Your task to perform on an android device: stop showing notifications on the lock screen Image 0: 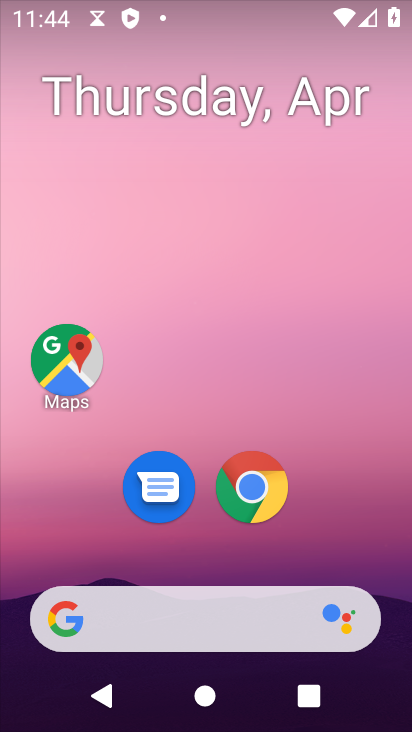
Step 0: drag from (302, 494) to (293, 190)
Your task to perform on an android device: stop showing notifications on the lock screen Image 1: 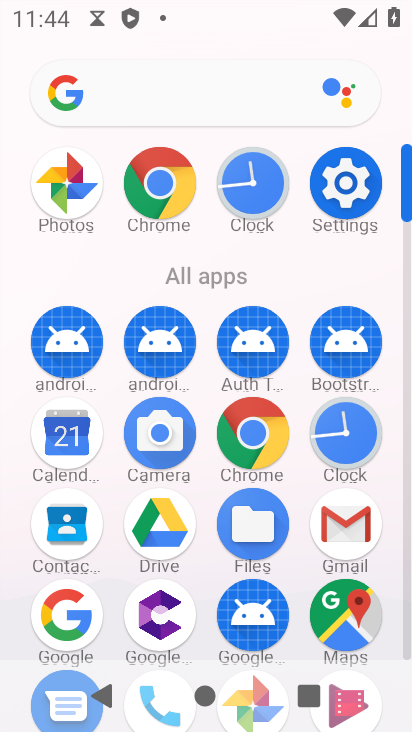
Step 1: click (348, 179)
Your task to perform on an android device: stop showing notifications on the lock screen Image 2: 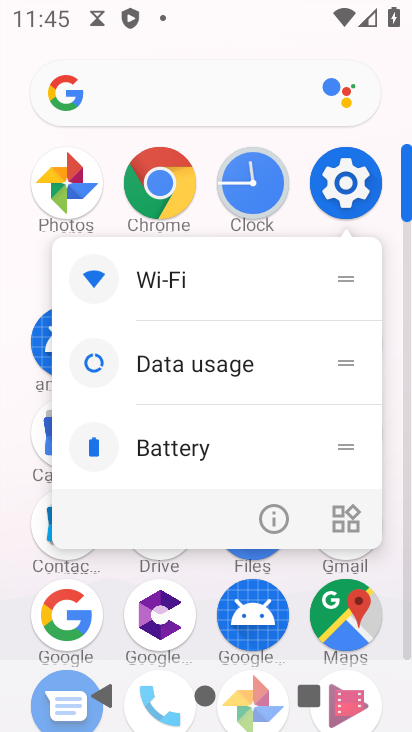
Step 2: click (350, 179)
Your task to perform on an android device: stop showing notifications on the lock screen Image 3: 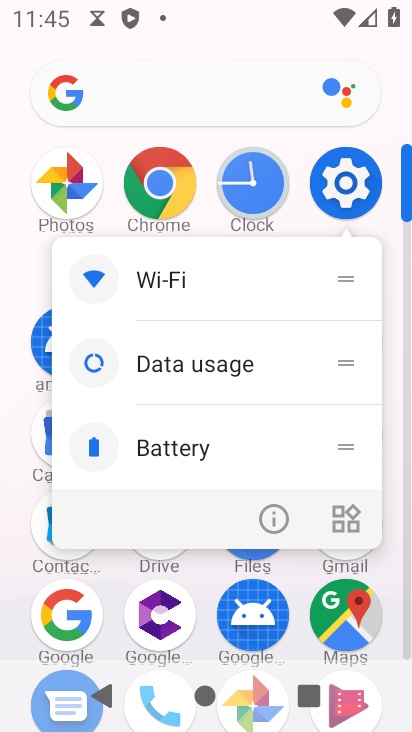
Step 3: click (350, 179)
Your task to perform on an android device: stop showing notifications on the lock screen Image 4: 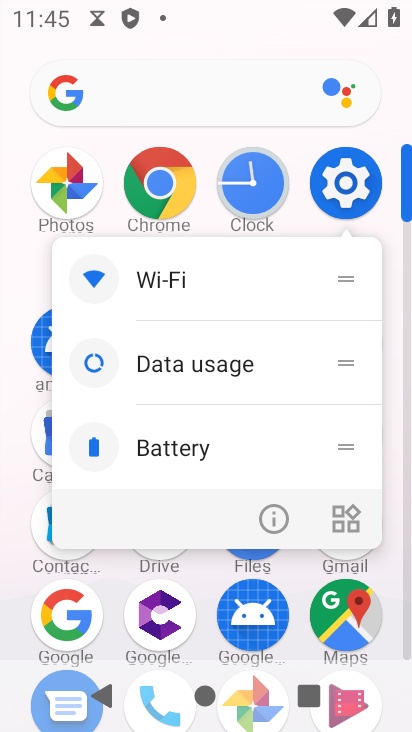
Step 4: click (350, 179)
Your task to perform on an android device: stop showing notifications on the lock screen Image 5: 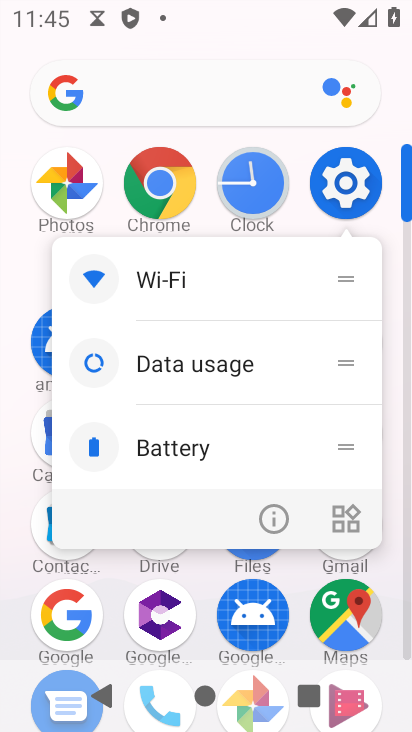
Step 5: click (350, 179)
Your task to perform on an android device: stop showing notifications on the lock screen Image 6: 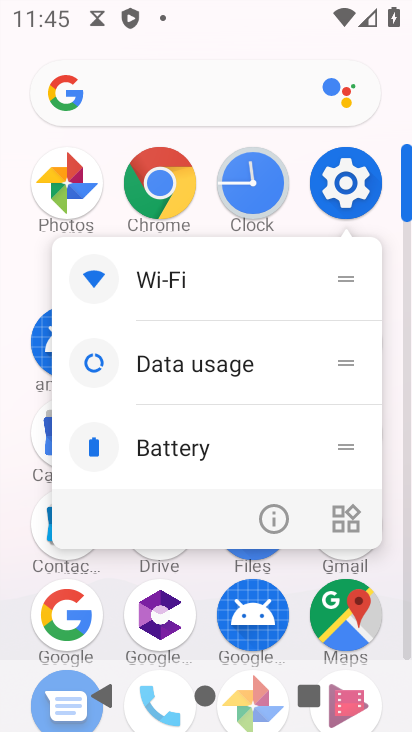
Step 6: click (365, 158)
Your task to perform on an android device: stop showing notifications on the lock screen Image 7: 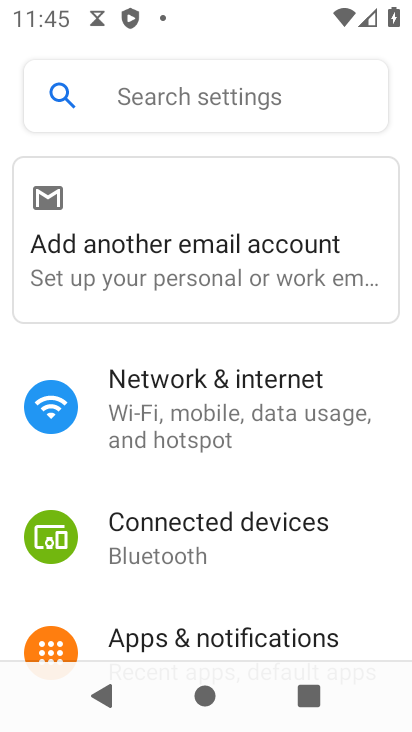
Step 7: drag from (200, 619) to (247, 386)
Your task to perform on an android device: stop showing notifications on the lock screen Image 8: 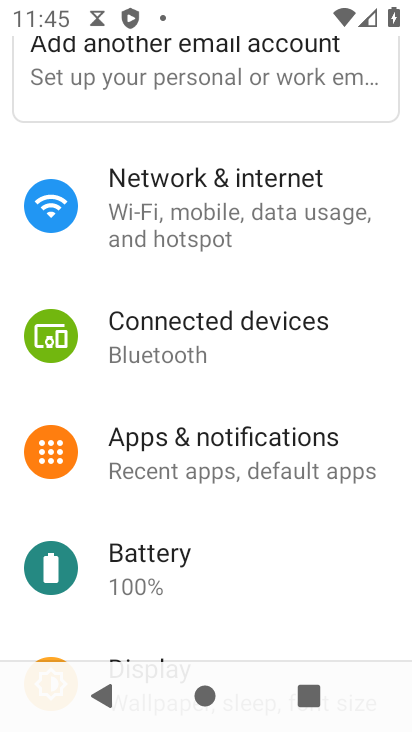
Step 8: click (212, 441)
Your task to perform on an android device: stop showing notifications on the lock screen Image 9: 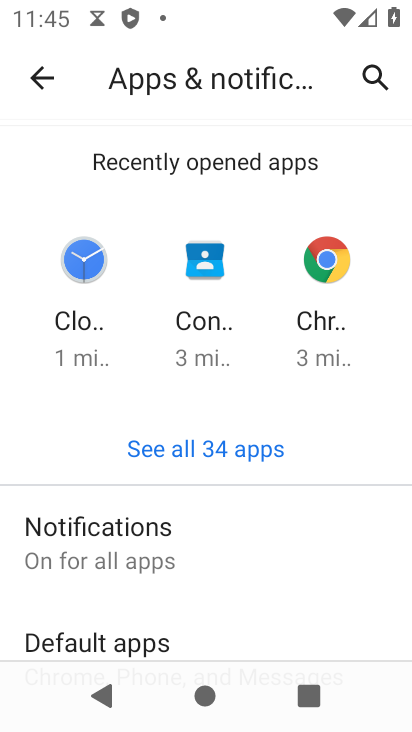
Step 9: click (216, 538)
Your task to perform on an android device: stop showing notifications on the lock screen Image 10: 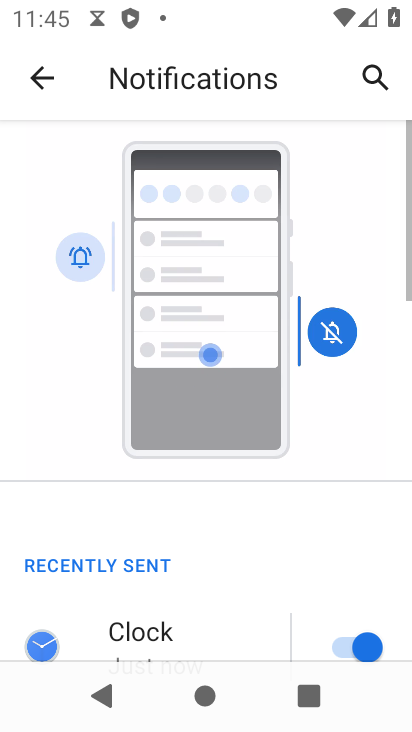
Step 10: drag from (229, 553) to (313, 64)
Your task to perform on an android device: stop showing notifications on the lock screen Image 11: 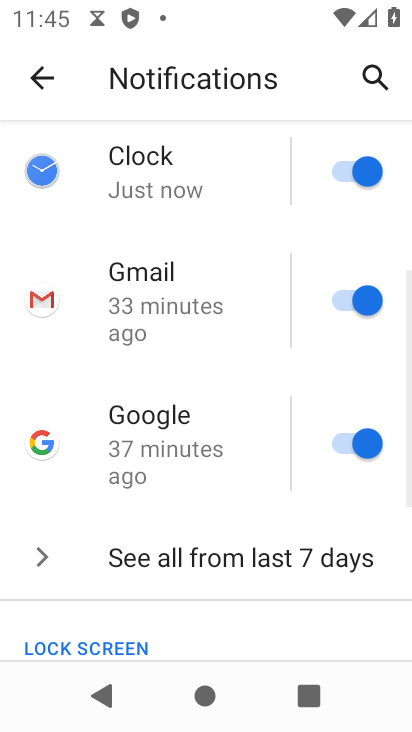
Step 11: drag from (173, 627) to (243, 247)
Your task to perform on an android device: stop showing notifications on the lock screen Image 12: 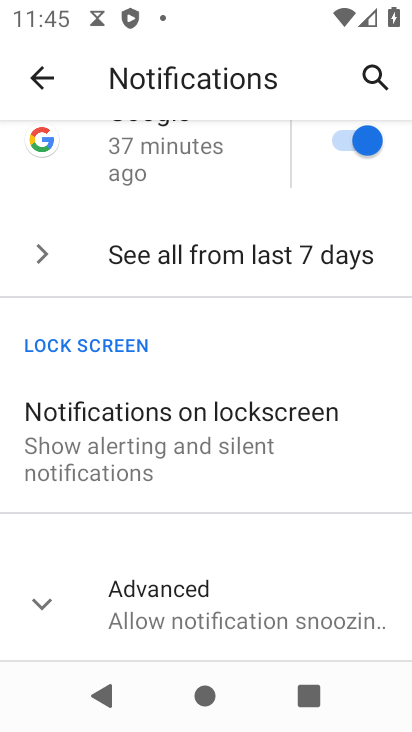
Step 12: click (179, 449)
Your task to perform on an android device: stop showing notifications on the lock screen Image 13: 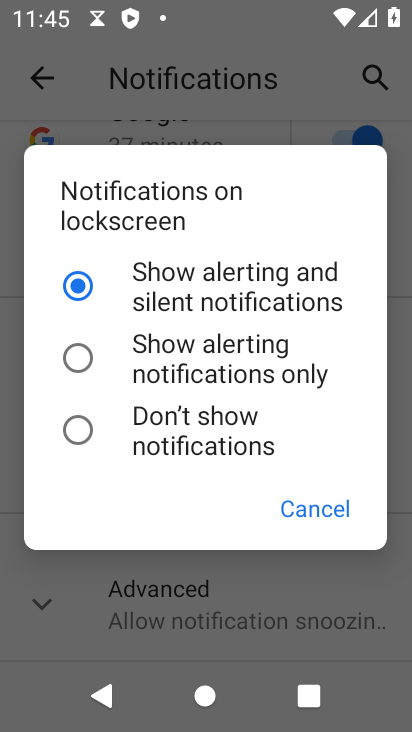
Step 13: click (179, 419)
Your task to perform on an android device: stop showing notifications on the lock screen Image 14: 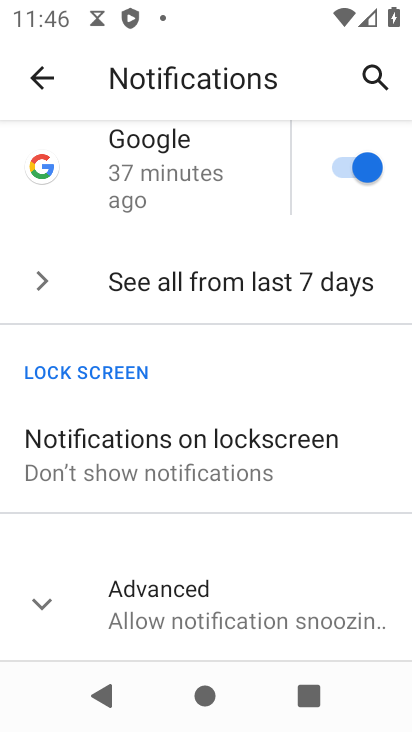
Step 14: task complete